Your task to perform on an android device: turn notification dots on Image 0: 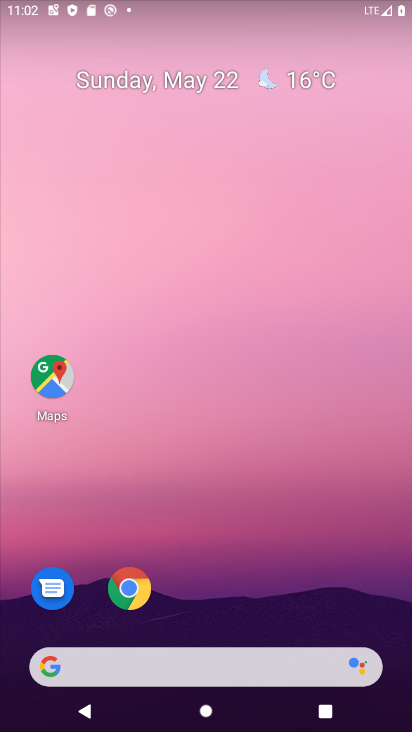
Step 0: drag from (233, 608) to (217, 188)
Your task to perform on an android device: turn notification dots on Image 1: 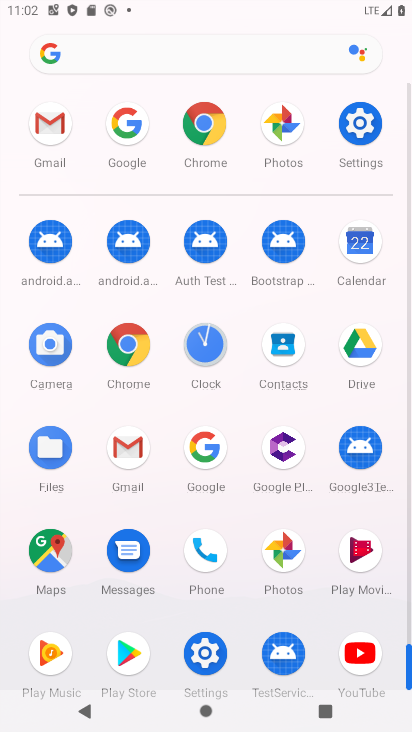
Step 1: click (356, 142)
Your task to perform on an android device: turn notification dots on Image 2: 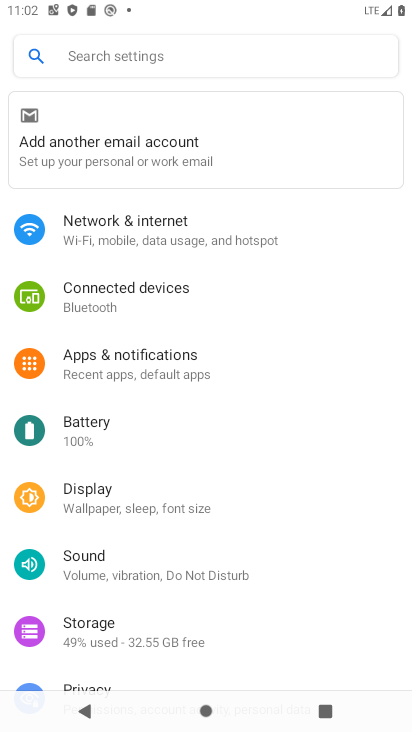
Step 2: click (161, 367)
Your task to perform on an android device: turn notification dots on Image 3: 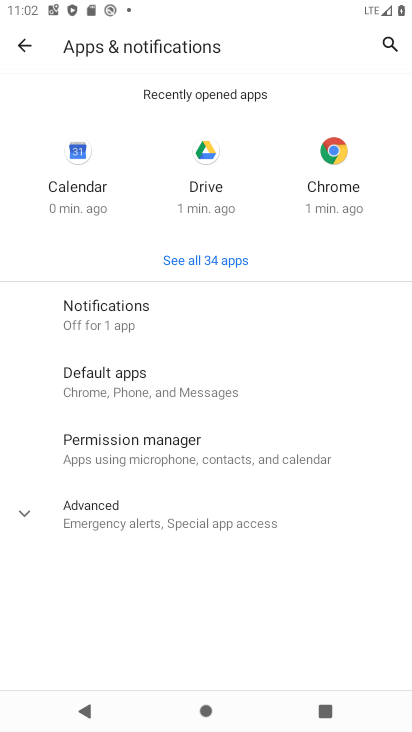
Step 3: click (139, 327)
Your task to perform on an android device: turn notification dots on Image 4: 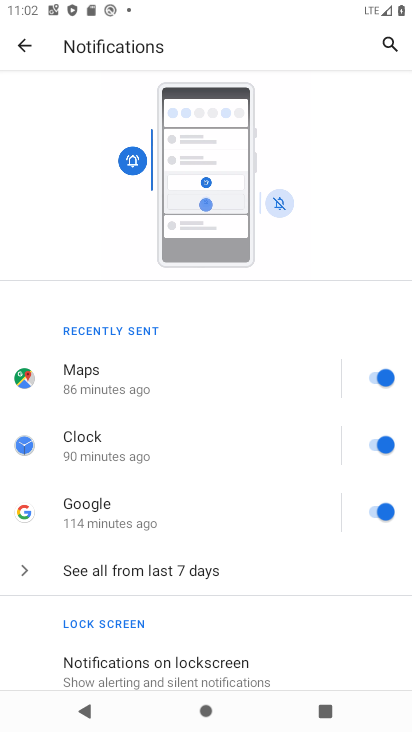
Step 4: drag from (154, 587) to (197, 302)
Your task to perform on an android device: turn notification dots on Image 5: 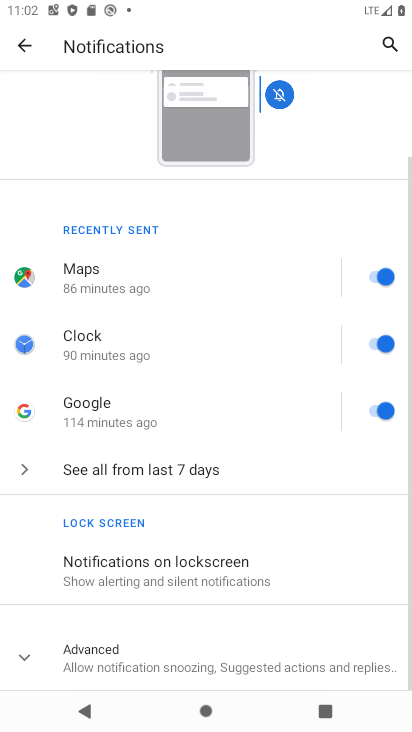
Step 5: drag from (210, 460) to (234, 254)
Your task to perform on an android device: turn notification dots on Image 6: 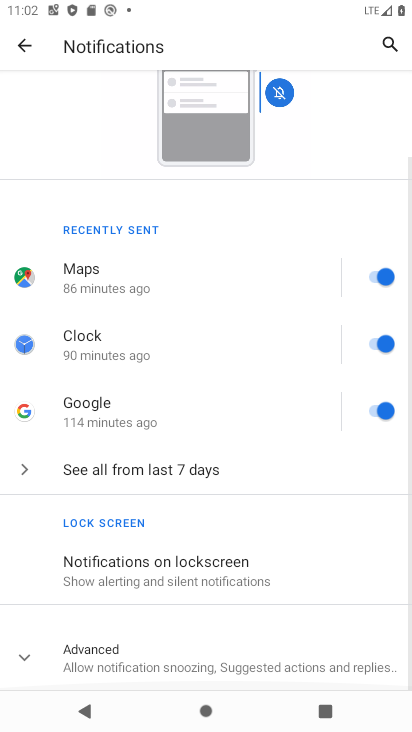
Step 6: click (174, 649)
Your task to perform on an android device: turn notification dots on Image 7: 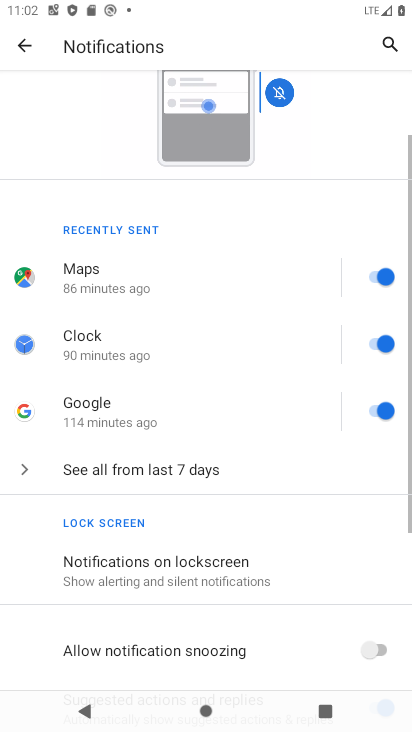
Step 7: drag from (176, 644) to (178, 213)
Your task to perform on an android device: turn notification dots on Image 8: 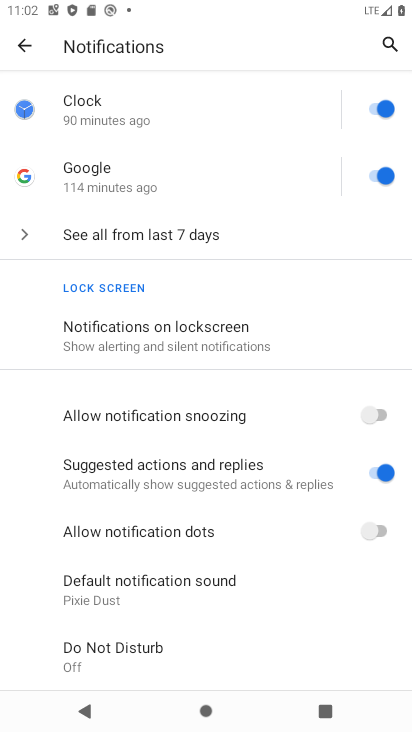
Step 8: click (380, 522)
Your task to perform on an android device: turn notification dots on Image 9: 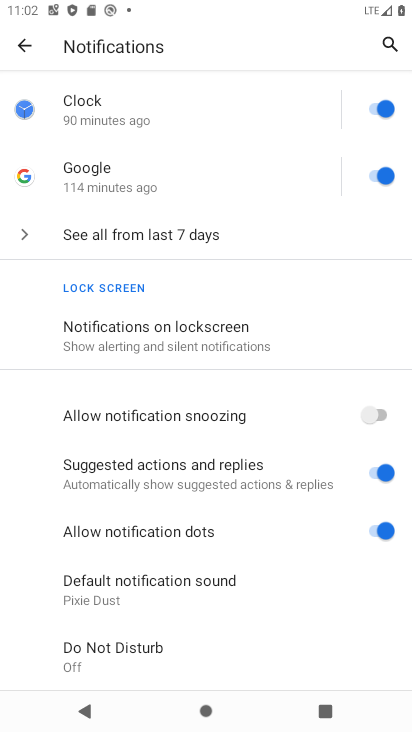
Step 9: task complete